Your task to perform on an android device: Empty the shopping cart on target.com. Search for "logitech g pro" on target.com, select the first entry, and add it to the cart. Image 0: 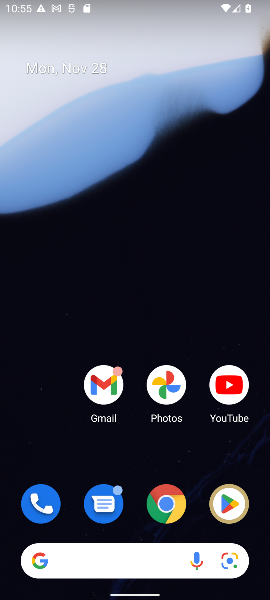
Step 0: click (161, 508)
Your task to perform on an android device: Empty the shopping cart on target.com. Search for "logitech g pro" on target.com, select the first entry, and add it to the cart. Image 1: 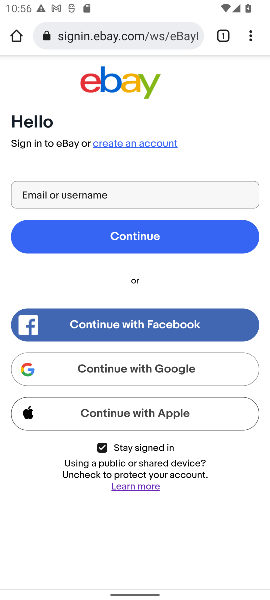
Step 1: click (99, 37)
Your task to perform on an android device: Empty the shopping cart on target.com. Search for "logitech g pro" on target.com, select the first entry, and add it to the cart. Image 2: 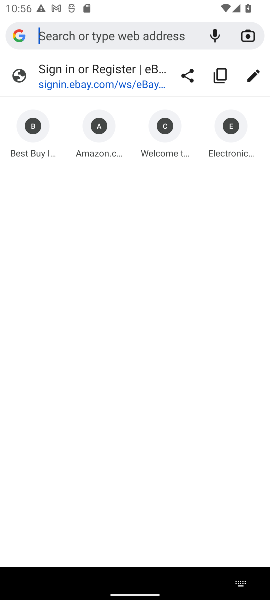
Step 2: type "target.com"
Your task to perform on an android device: Empty the shopping cart on target.com. Search for "logitech g pro" on target.com, select the first entry, and add it to the cart. Image 3: 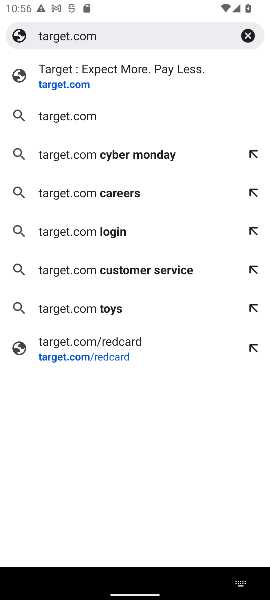
Step 3: click (55, 80)
Your task to perform on an android device: Empty the shopping cart on target.com. Search for "logitech g pro" on target.com, select the first entry, and add it to the cart. Image 4: 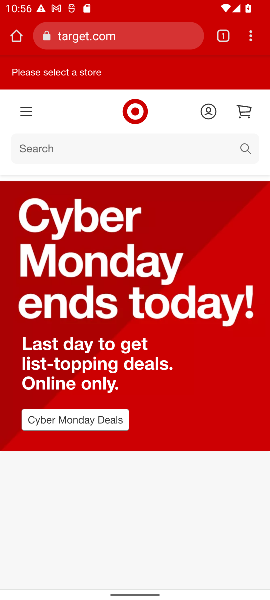
Step 4: click (245, 113)
Your task to perform on an android device: Empty the shopping cart on target.com. Search for "logitech g pro" on target.com, select the first entry, and add it to the cart. Image 5: 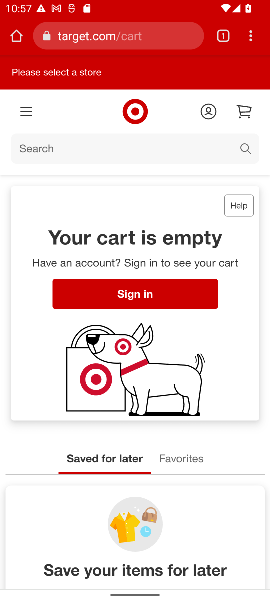
Step 5: click (51, 147)
Your task to perform on an android device: Empty the shopping cart on target.com. Search for "logitech g pro" on target.com, select the first entry, and add it to the cart. Image 6: 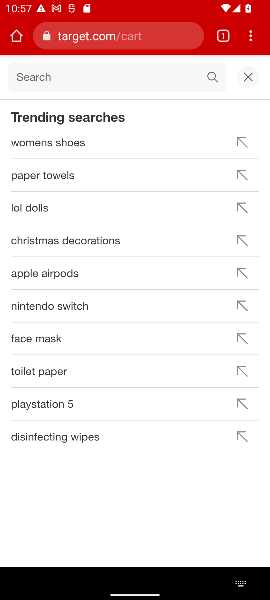
Step 6: type "logitech g pro"
Your task to perform on an android device: Empty the shopping cart on target.com. Search for "logitech g pro" on target.com, select the first entry, and add it to the cart. Image 7: 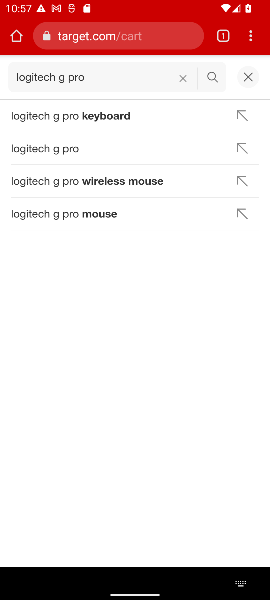
Step 7: click (60, 148)
Your task to perform on an android device: Empty the shopping cart on target.com. Search for "logitech g pro" on target.com, select the first entry, and add it to the cart. Image 8: 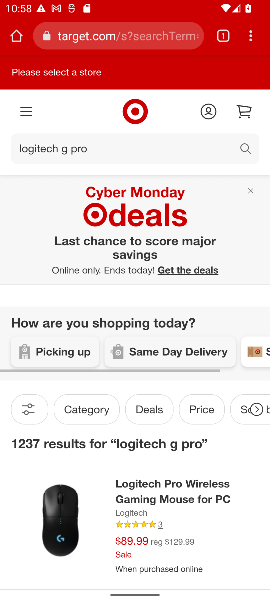
Step 8: task complete